Your task to perform on an android device: stop showing notifications on the lock screen Image 0: 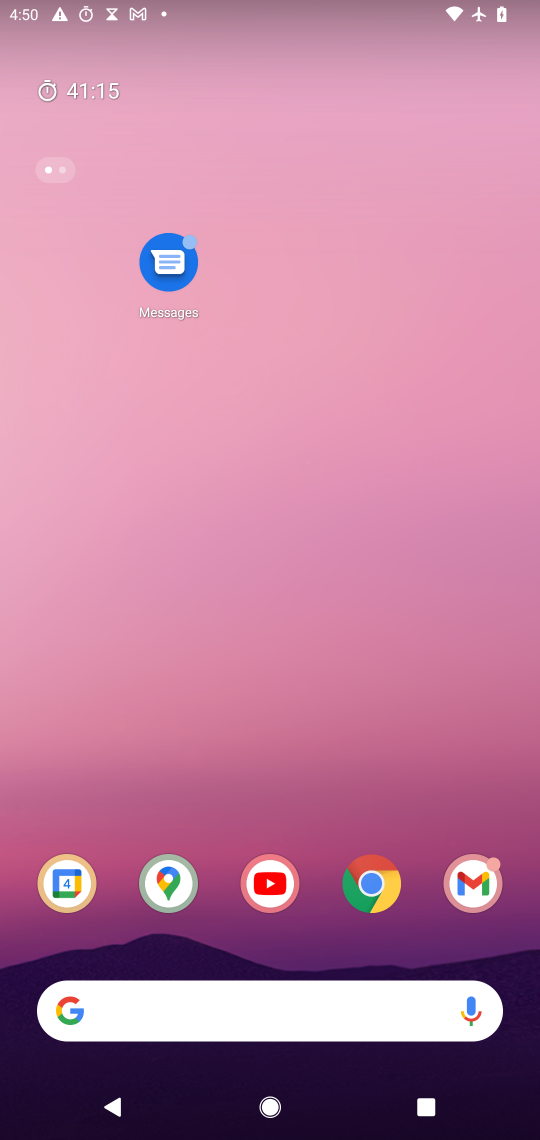
Step 0: drag from (325, 958) to (325, 3)
Your task to perform on an android device: stop showing notifications on the lock screen Image 1: 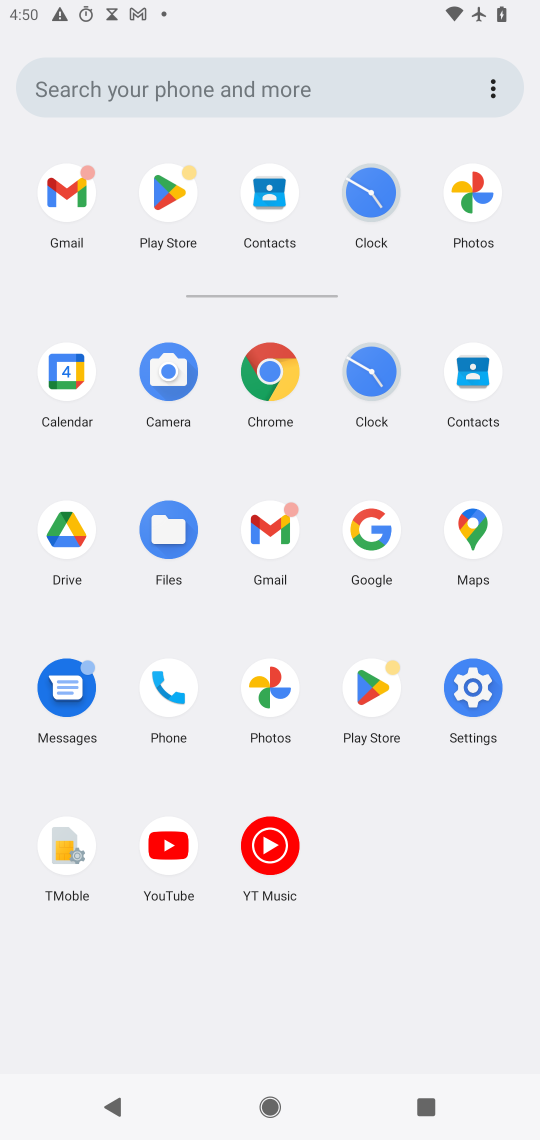
Step 1: click (468, 692)
Your task to perform on an android device: stop showing notifications on the lock screen Image 2: 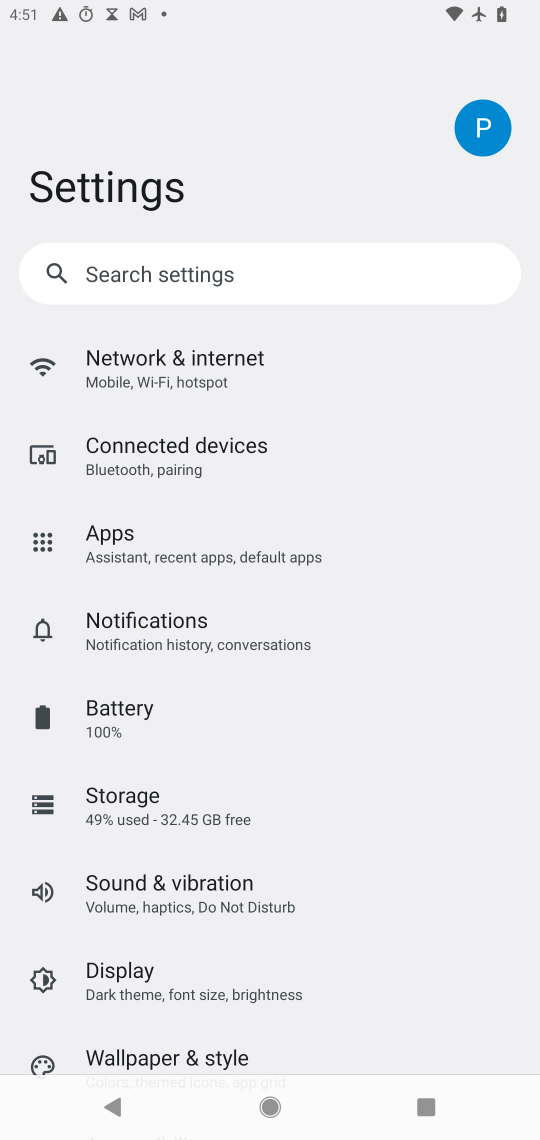
Step 2: click (163, 619)
Your task to perform on an android device: stop showing notifications on the lock screen Image 3: 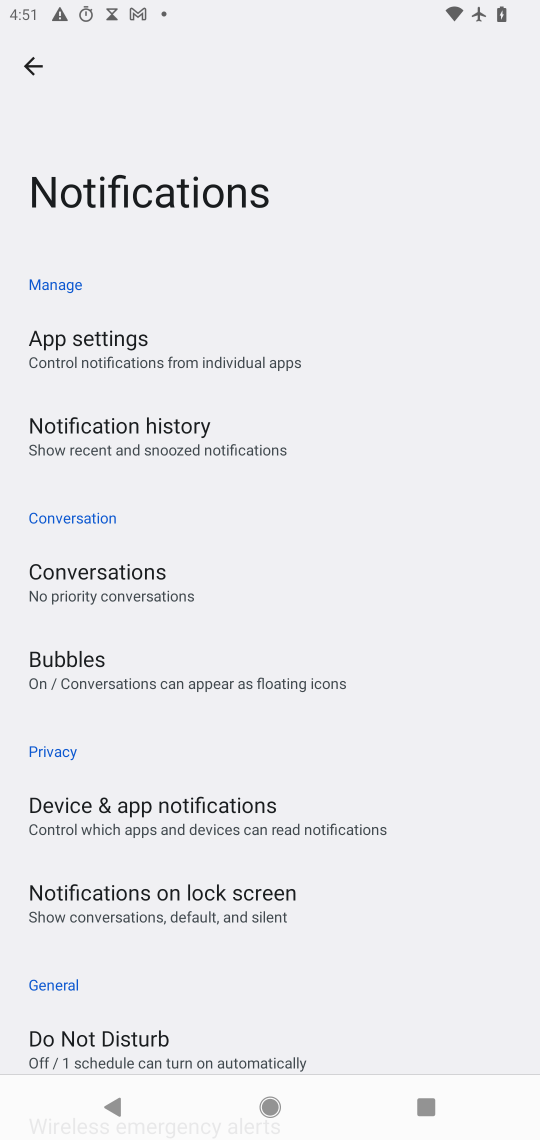
Step 3: click (169, 907)
Your task to perform on an android device: stop showing notifications on the lock screen Image 4: 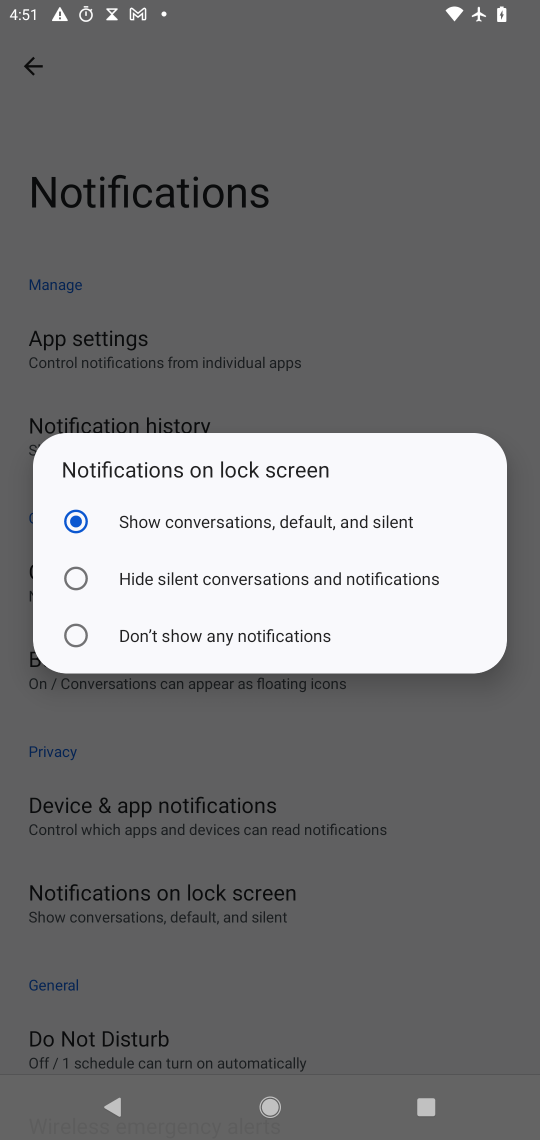
Step 4: click (74, 636)
Your task to perform on an android device: stop showing notifications on the lock screen Image 5: 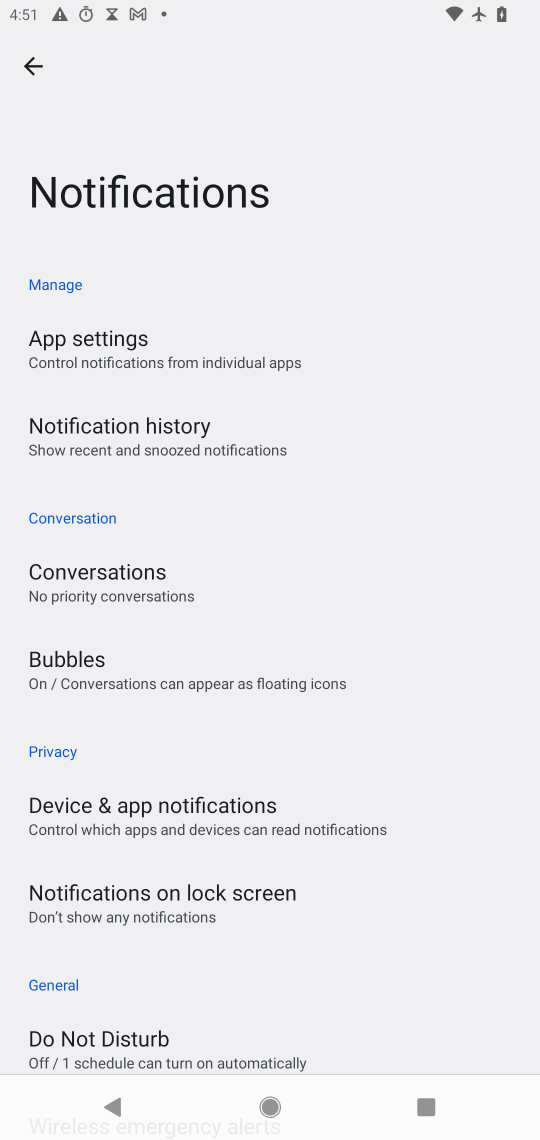
Step 5: task complete